Your task to perform on an android device: Go to wifi settings Image 0: 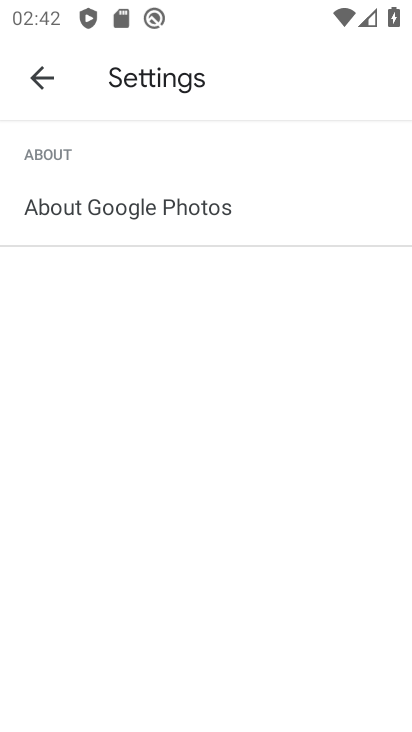
Step 0: press back button
Your task to perform on an android device: Go to wifi settings Image 1: 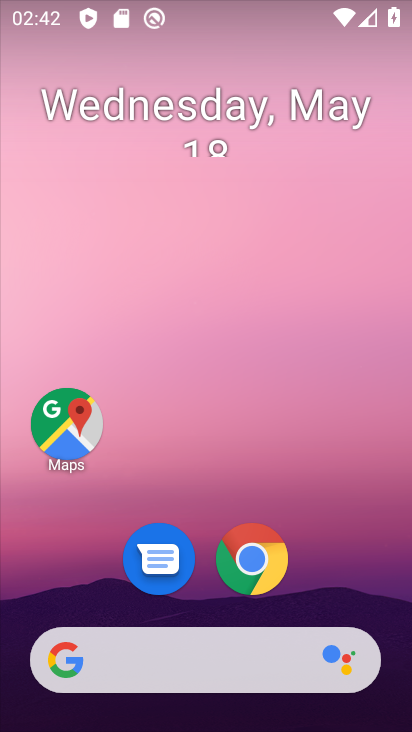
Step 1: drag from (122, 9) to (130, 488)
Your task to perform on an android device: Go to wifi settings Image 2: 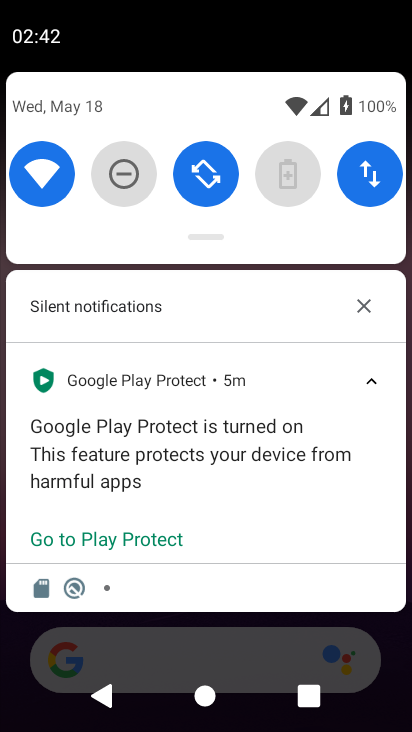
Step 2: click (38, 168)
Your task to perform on an android device: Go to wifi settings Image 3: 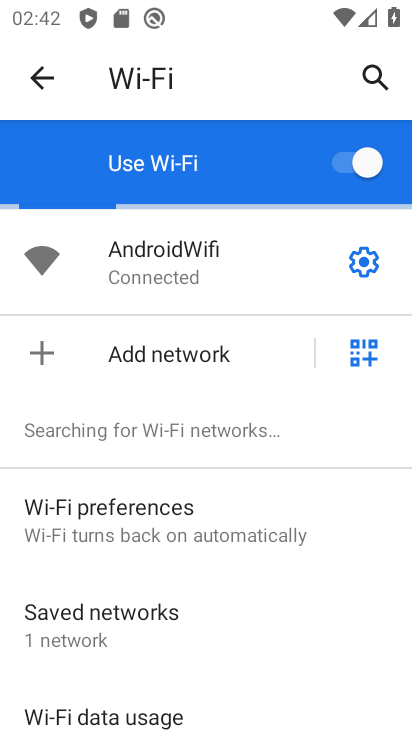
Step 3: task complete